Your task to perform on an android device: toggle javascript in the chrome app Image 0: 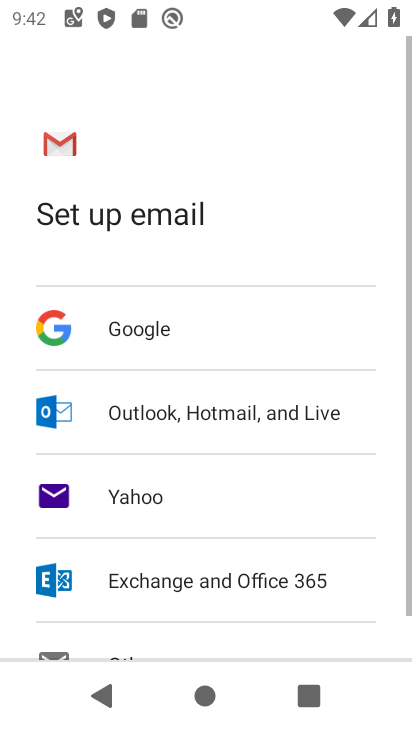
Step 0: press home button
Your task to perform on an android device: toggle javascript in the chrome app Image 1: 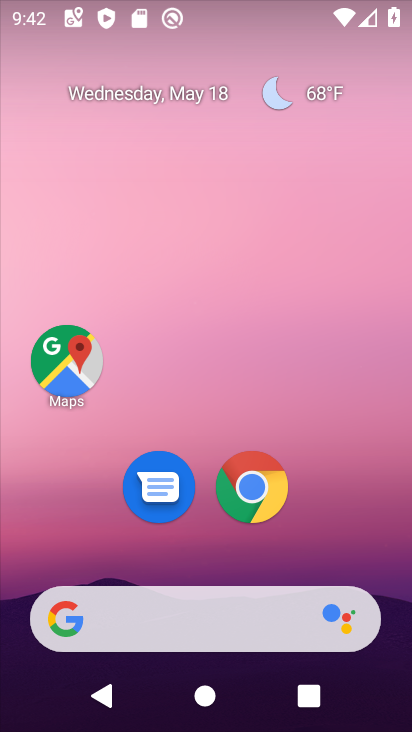
Step 1: drag from (392, 532) to (372, 196)
Your task to perform on an android device: toggle javascript in the chrome app Image 2: 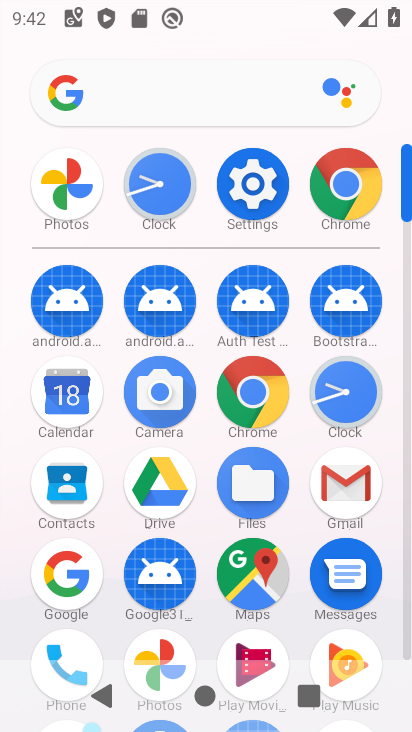
Step 2: click (270, 392)
Your task to perform on an android device: toggle javascript in the chrome app Image 3: 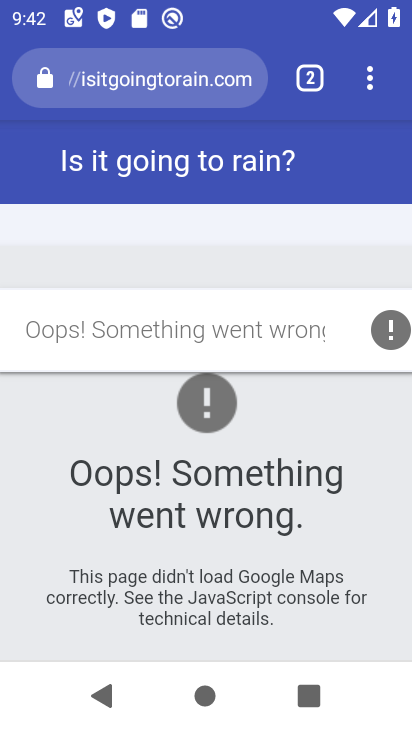
Step 3: drag from (366, 81) to (176, 540)
Your task to perform on an android device: toggle javascript in the chrome app Image 4: 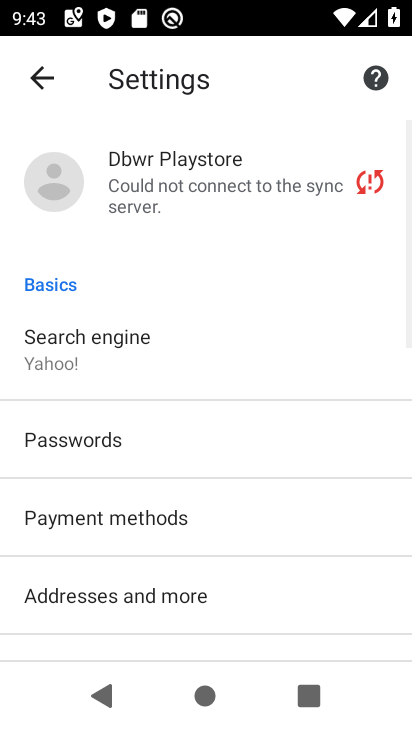
Step 4: drag from (239, 592) to (245, 272)
Your task to perform on an android device: toggle javascript in the chrome app Image 5: 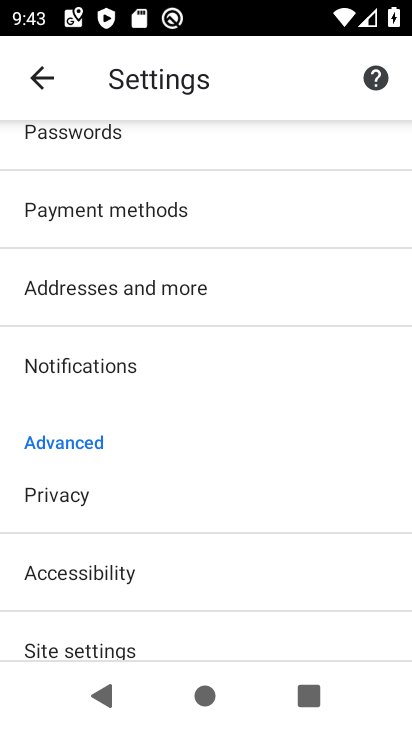
Step 5: drag from (232, 583) to (241, 312)
Your task to perform on an android device: toggle javascript in the chrome app Image 6: 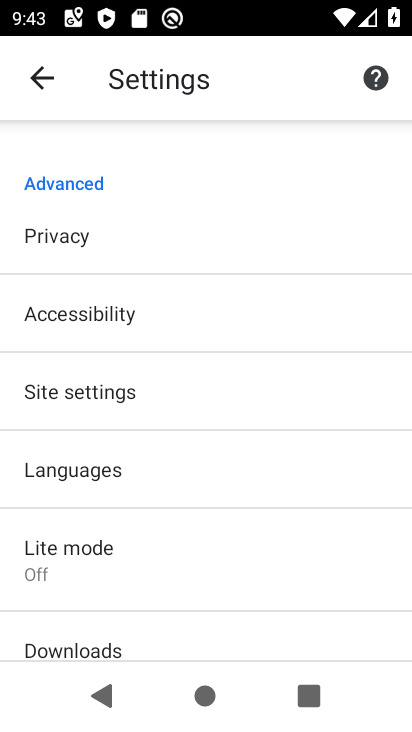
Step 6: click (143, 416)
Your task to perform on an android device: toggle javascript in the chrome app Image 7: 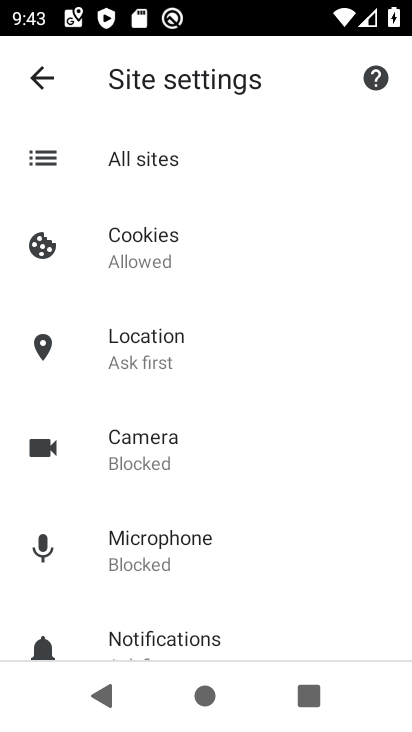
Step 7: drag from (257, 570) to (246, 271)
Your task to perform on an android device: toggle javascript in the chrome app Image 8: 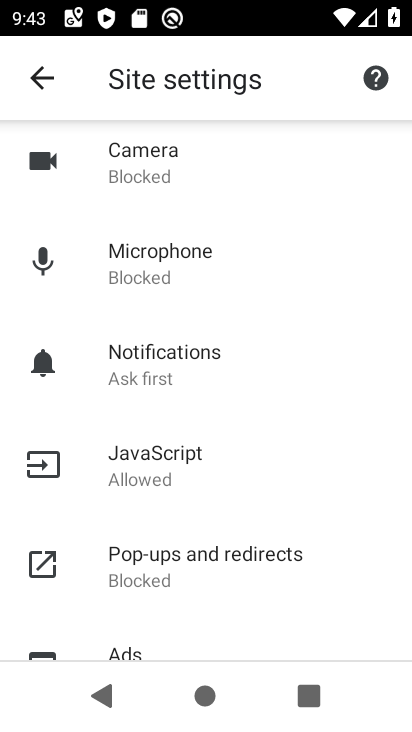
Step 8: click (189, 455)
Your task to perform on an android device: toggle javascript in the chrome app Image 9: 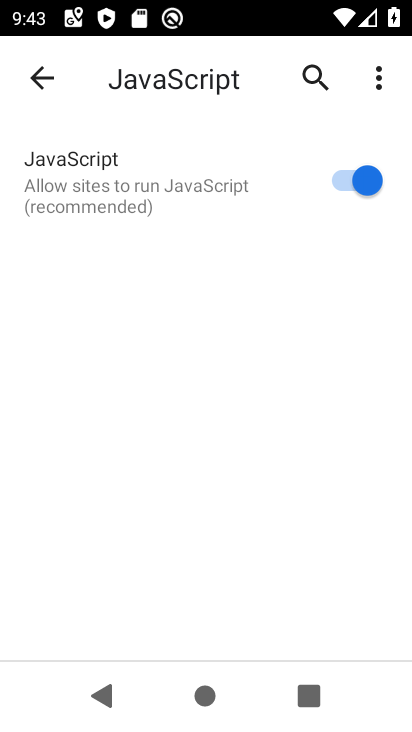
Step 9: click (330, 184)
Your task to perform on an android device: toggle javascript in the chrome app Image 10: 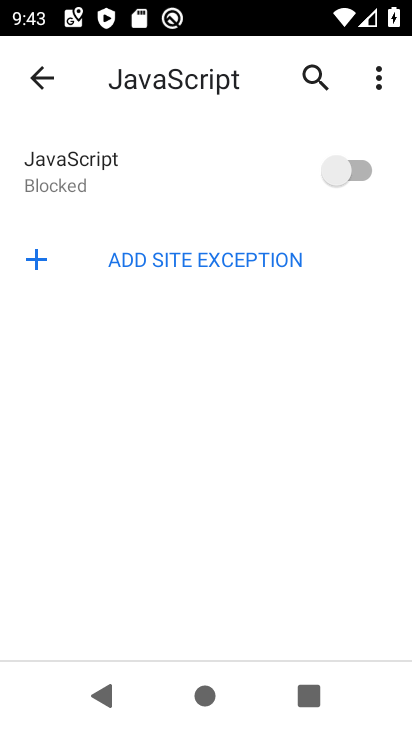
Step 10: task complete